Your task to perform on an android device: Show me the alarms in the clock app Image 0: 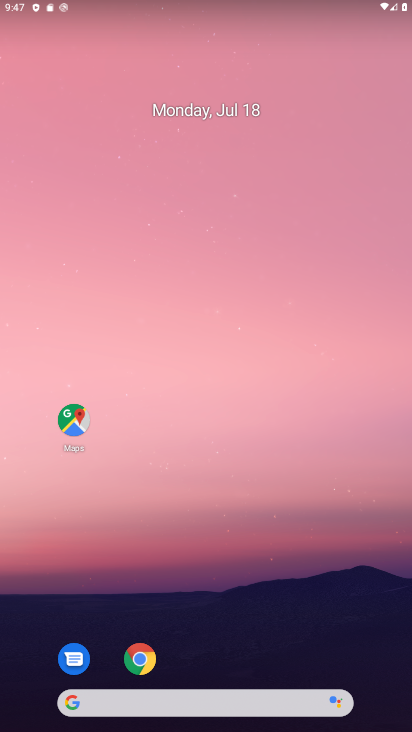
Step 0: drag from (311, 630) to (143, 25)
Your task to perform on an android device: Show me the alarms in the clock app Image 1: 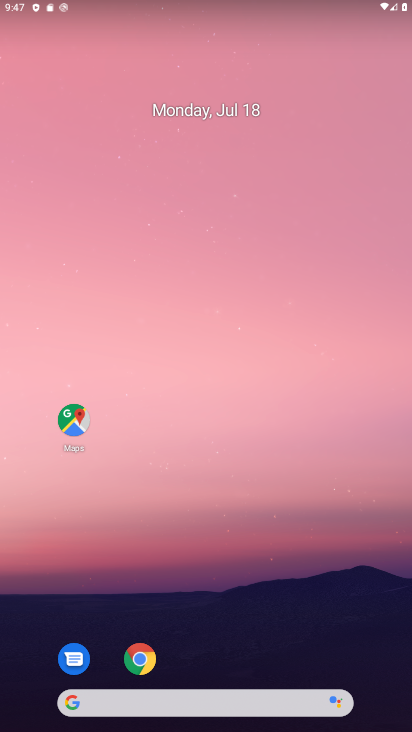
Step 1: drag from (168, 499) to (152, 207)
Your task to perform on an android device: Show me the alarms in the clock app Image 2: 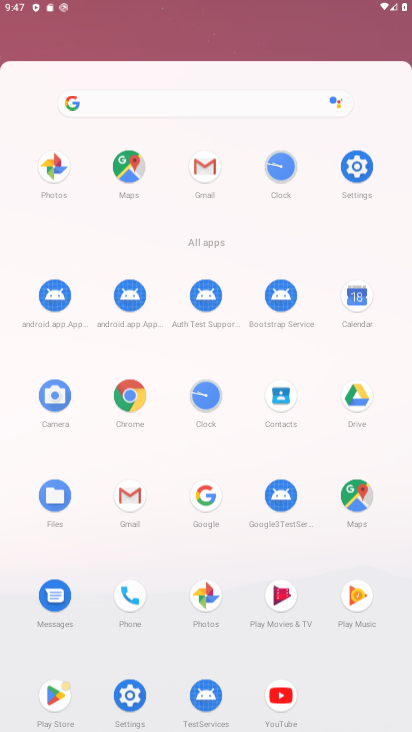
Step 2: click (173, 99)
Your task to perform on an android device: Show me the alarms in the clock app Image 3: 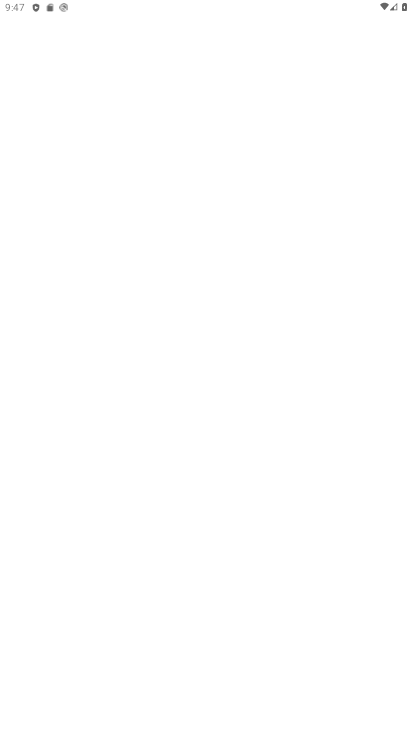
Step 3: click (284, 86)
Your task to perform on an android device: Show me the alarms in the clock app Image 4: 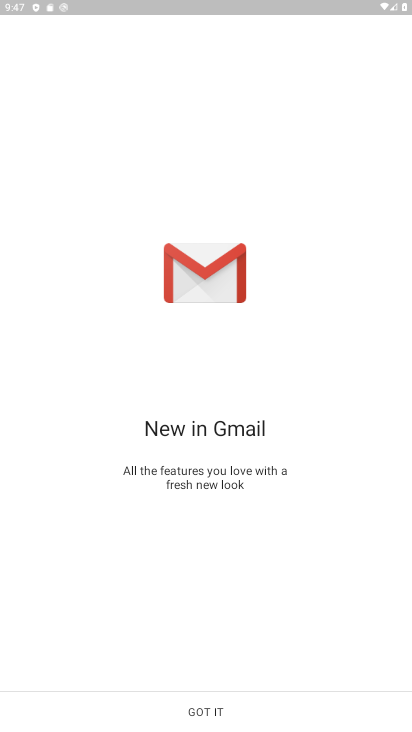
Step 4: press back button
Your task to perform on an android device: Show me the alarms in the clock app Image 5: 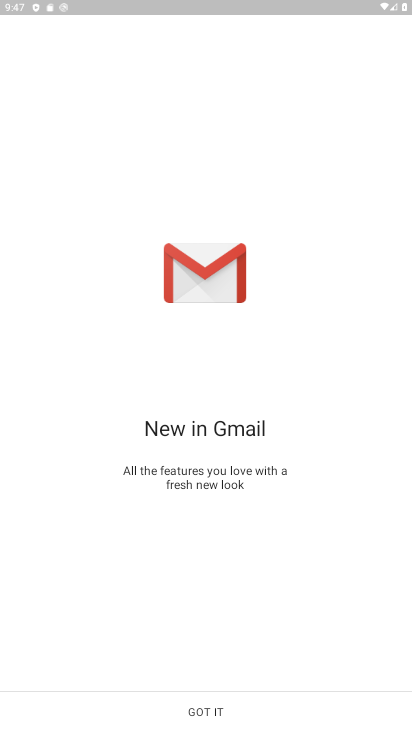
Step 5: press back button
Your task to perform on an android device: Show me the alarms in the clock app Image 6: 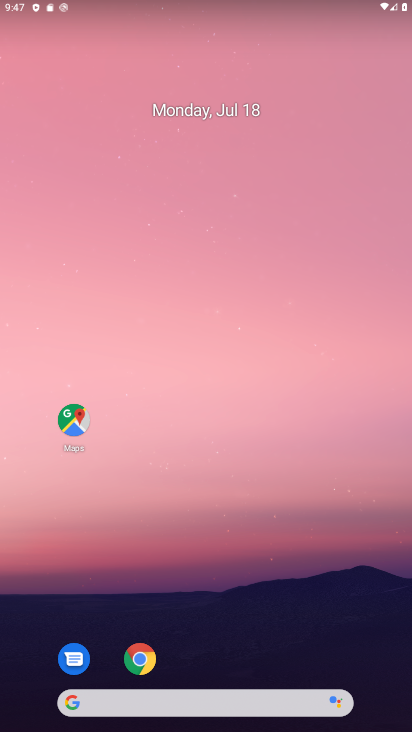
Step 6: drag from (214, 659) to (179, 550)
Your task to perform on an android device: Show me the alarms in the clock app Image 7: 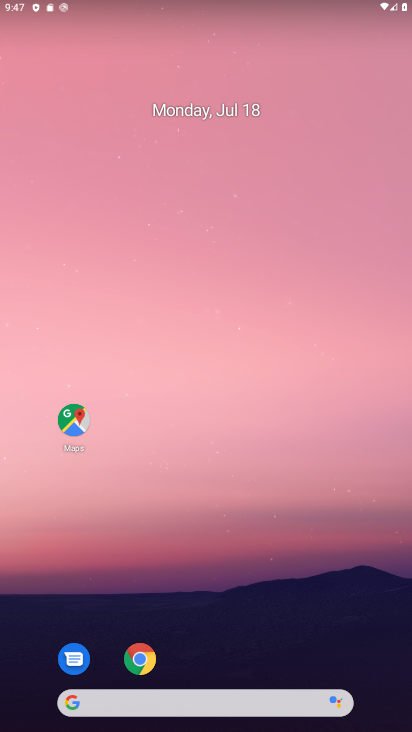
Step 7: drag from (237, 479) to (171, 207)
Your task to perform on an android device: Show me the alarms in the clock app Image 8: 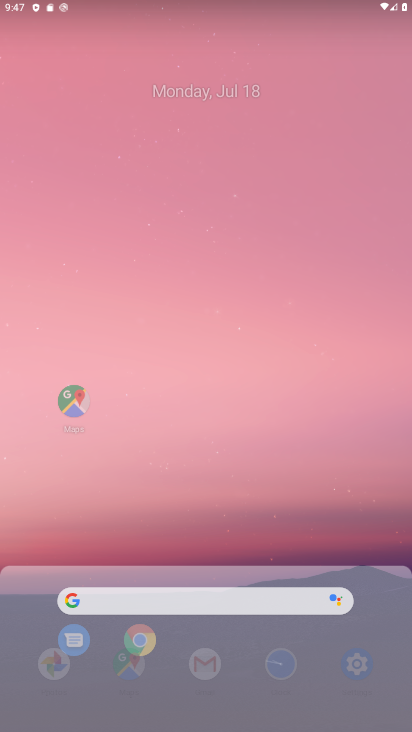
Step 8: click (132, 109)
Your task to perform on an android device: Show me the alarms in the clock app Image 9: 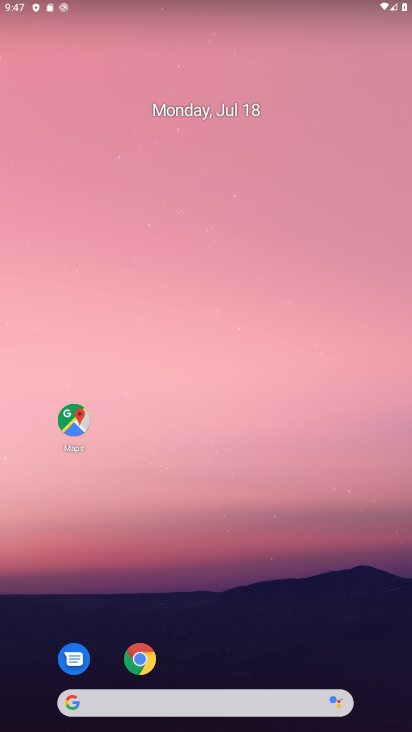
Step 9: drag from (230, 573) to (191, 196)
Your task to perform on an android device: Show me the alarms in the clock app Image 10: 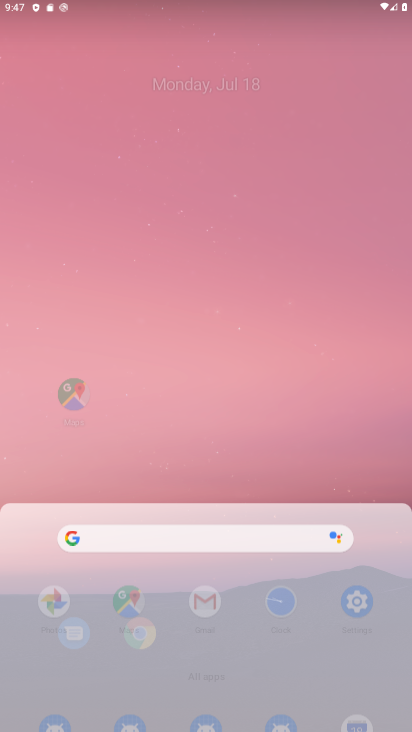
Step 10: drag from (223, 525) to (193, 80)
Your task to perform on an android device: Show me the alarms in the clock app Image 11: 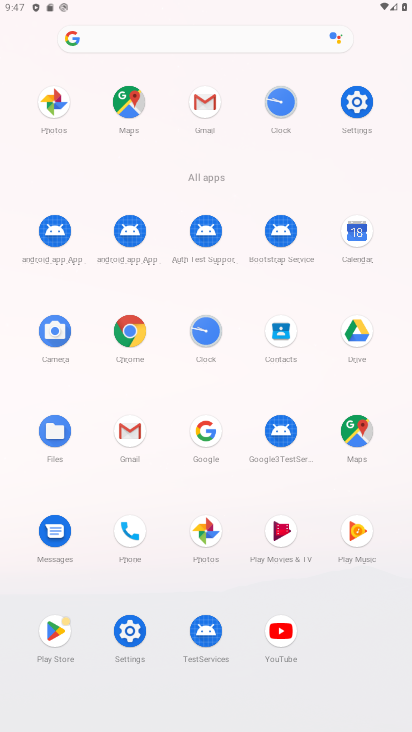
Step 11: drag from (192, 330) to (212, 55)
Your task to perform on an android device: Show me the alarms in the clock app Image 12: 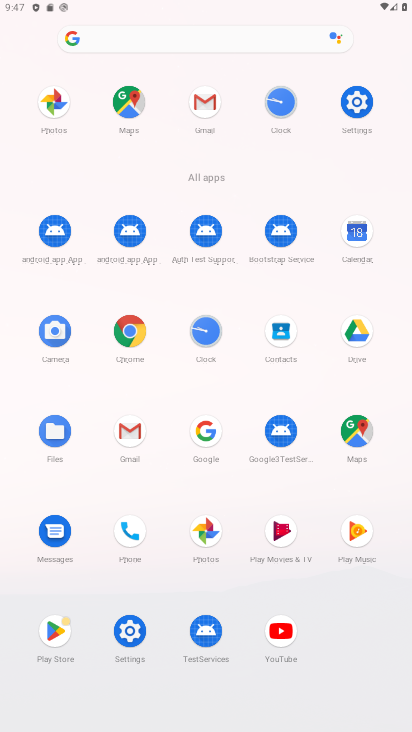
Step 12: click (193, 322)
Your task to perform on an android device: Show me the alarms in the clock app Image 13: 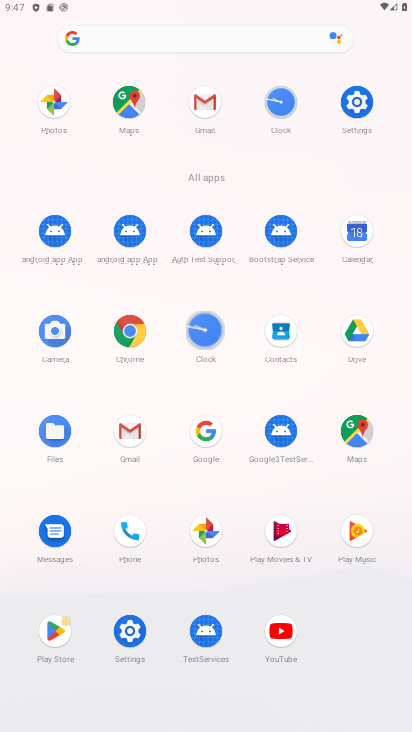
Step 13: click (204, 332)
Your task to perform on an android device: Show me the alarms in the clock app Image 14: 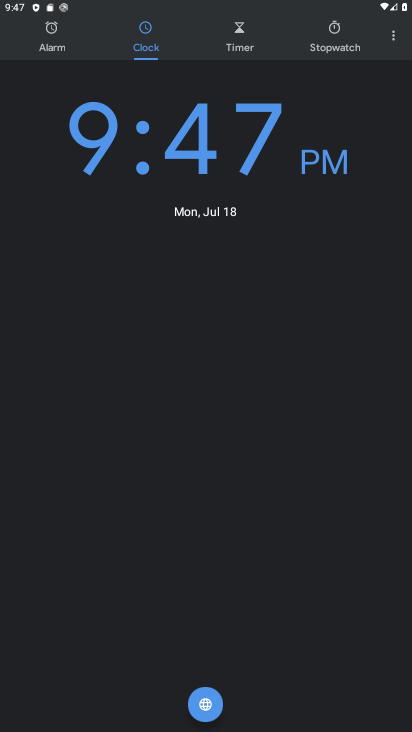
Step 14: click (386, 31)
Your task to perform on an android device: Show me the alarms in the clock app Image 15: 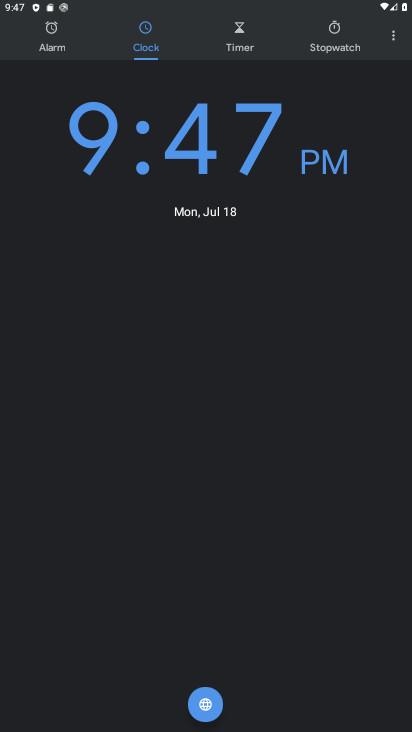
Step 15: click (386, 31)
Your task to perform on an android device: Show me the alarms in the clock app Image 16: 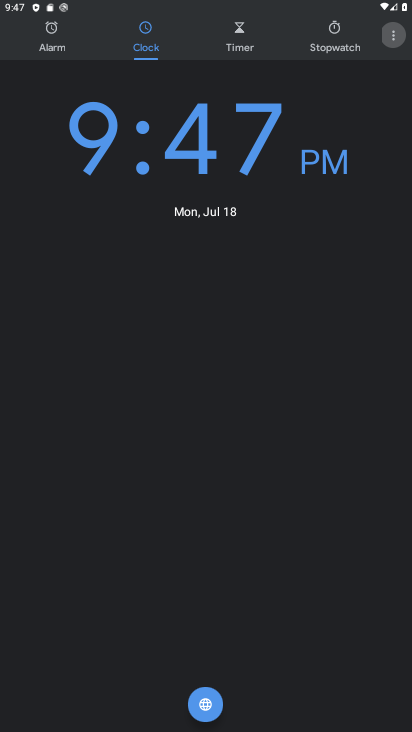
Step 16: click (386, 31)
Your task to perform on an android device: Show me the alarms in the clock app Image 17: 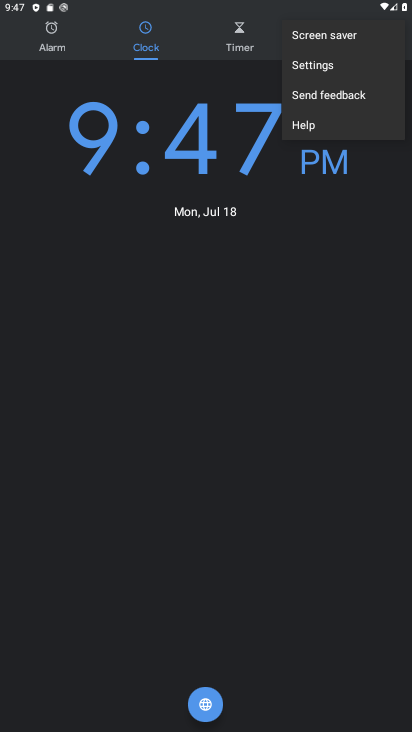
Step 17: click (45, 40)
Your task to perform on an android device: Show me the alarms in the clock app Image 18: 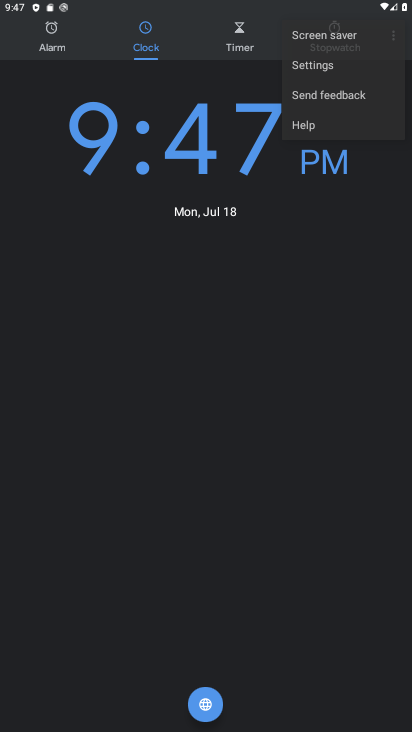
Step 18: click (44, 39)
Your task to perform on an android device: Show me the alarms in the clock app Image 19: 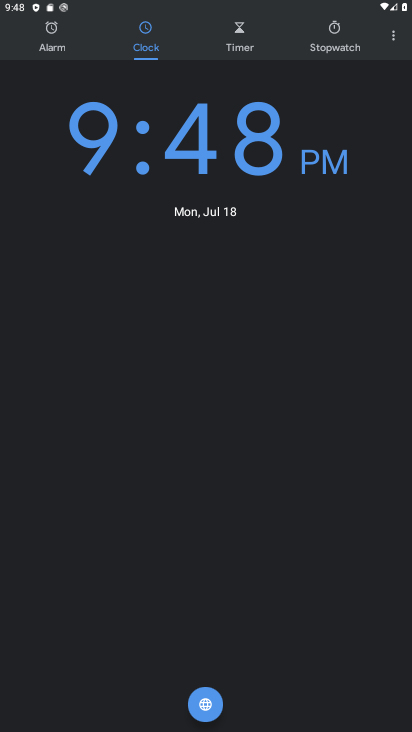
Step 19: click (57, 27)
Your task to perform on an android device: Show me the alarms in the clock app Image 20: 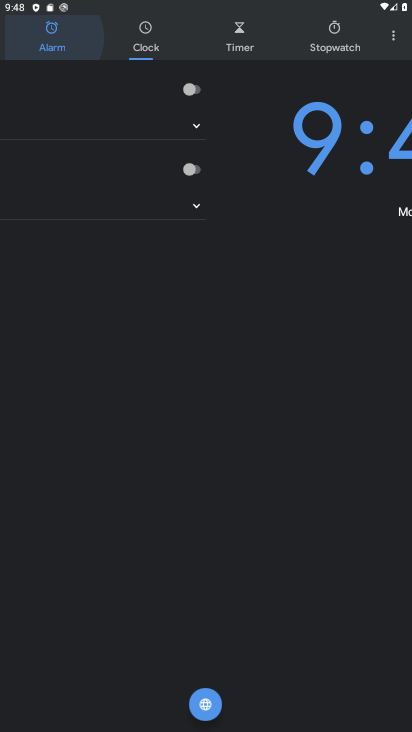
Step 20: click (57, 27)
Your task to perform on an android device: Show me the alarms in the clock app Image 21: 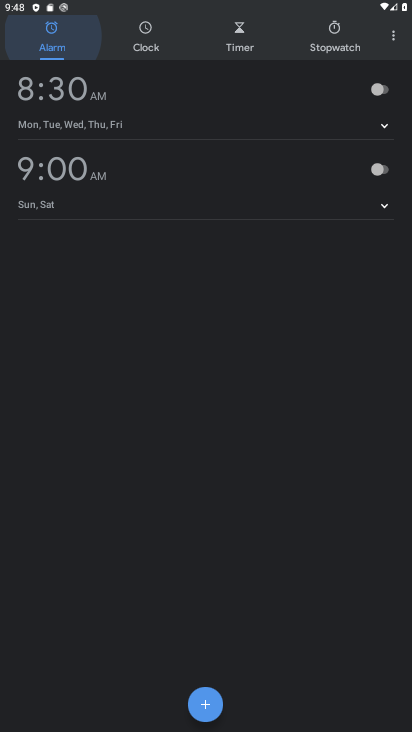
Step 21: click (51, 33)
Your task to perform on an android device: Show me the alarms in the clock app Image 22: 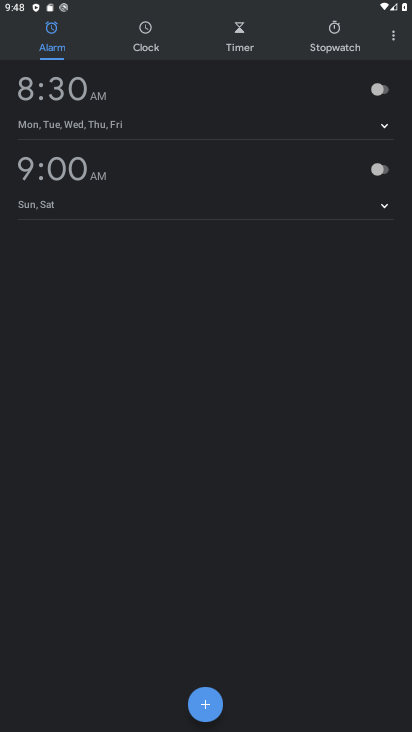
Step 22: task complete